Your task to perform on an android device: turn on notifications settings in the gmail app Image 0: 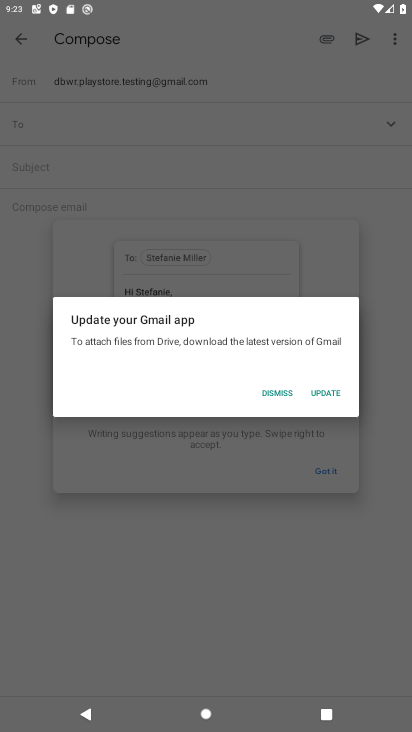
Step 0: press home button
Your task to perform on an android device: turn on notifications settings in the gmail app Image 1: 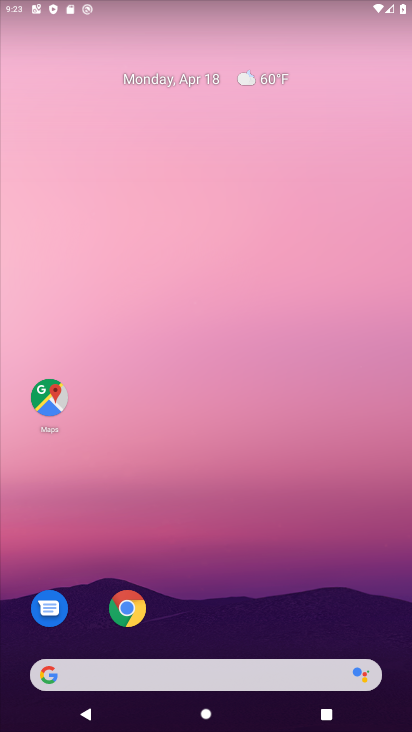
Step 1: drag from (342, 403) to (304, 117)
Your task to perform on an android device: turn on notifications settings in the gmail app Image 2: 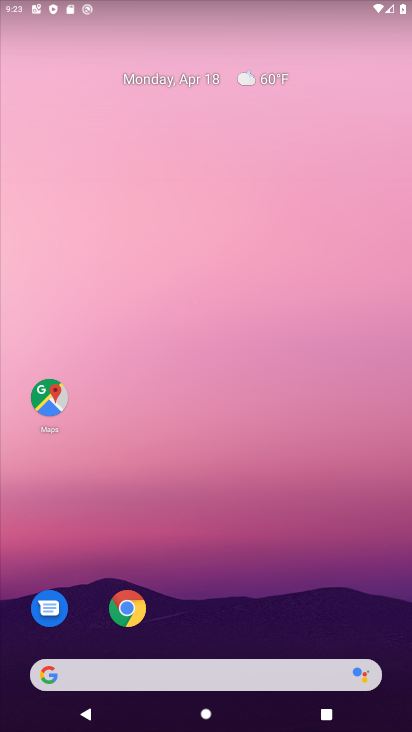
Step 2: drag from (353, 455) to (315, 85)
Your task to perform on an android device: turn on notifications settings in the gmail app Image 3: 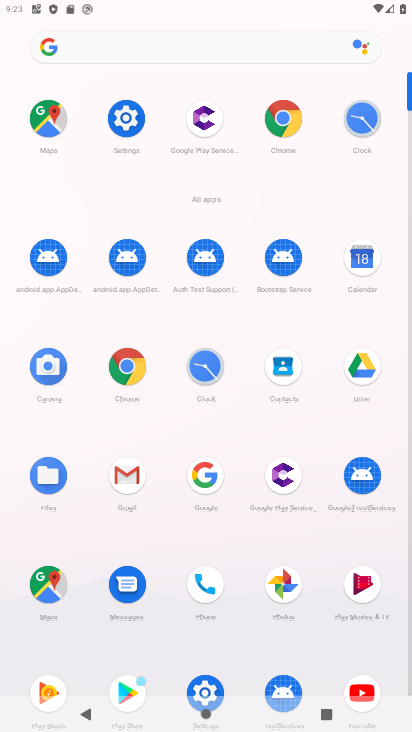
Step 3: click (195, 683)
Your task to perform on an android device: turn on notifications settings in the gmail app Image 4: 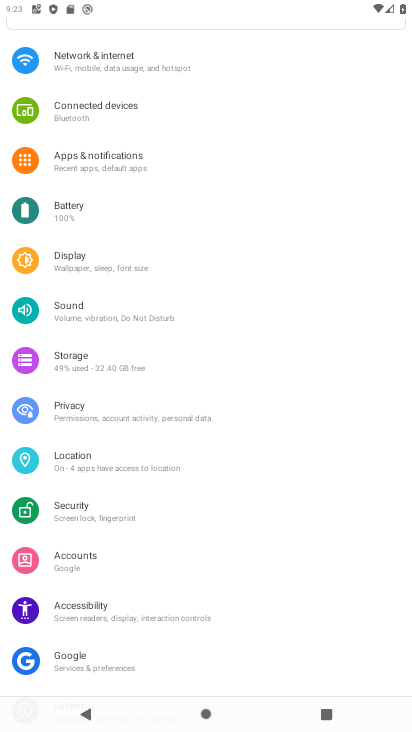
Step 4: press back button
Your task to perform on an android device: turn on notifications settings in the gmail app Image 5: 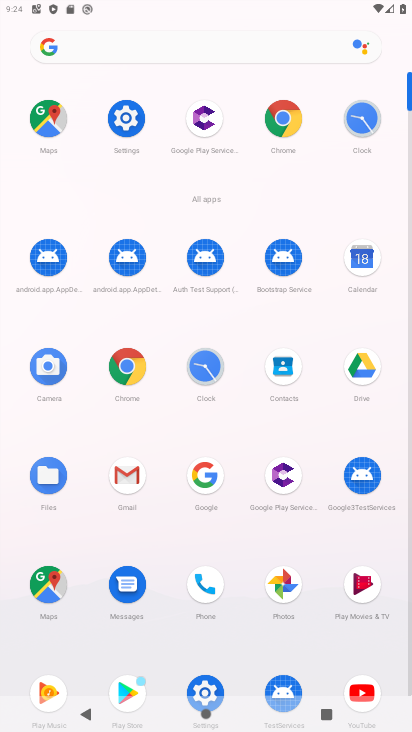
Step 5: click (134, 475)
Your task to perform on an android device: turn on notifications settings in the gmail app Image 6: 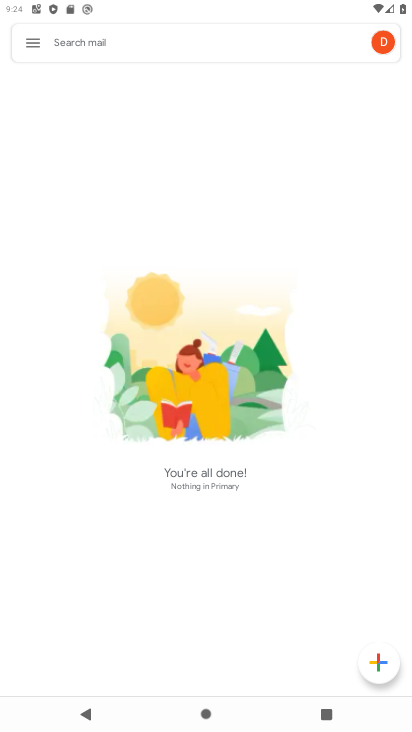
Step 6: click (32, 39)
Your task to perform on an android device: turn on notifications settings in the gmail app Image 7: 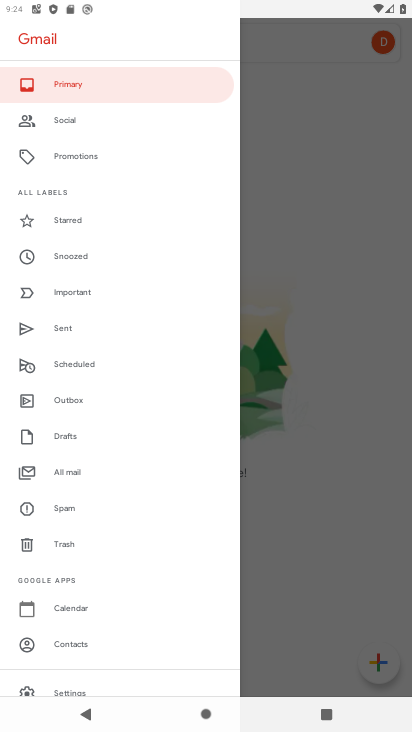
Step 7: click (68, 683)
Your task to perform on an android device: turn on notifications settings in the gmail app Image 8: 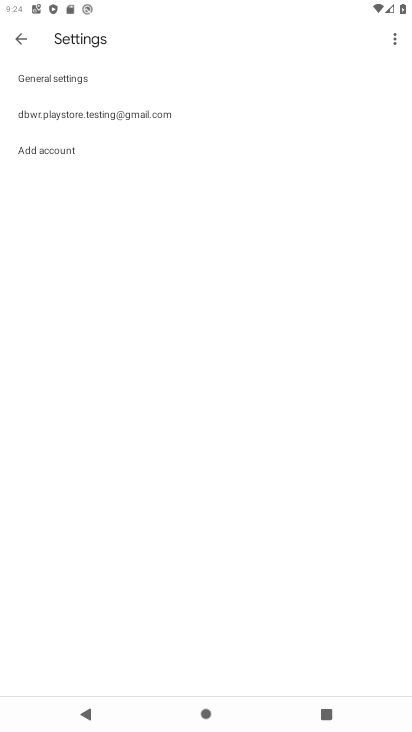
Step 8: click (52, 73)
Your task to perform on an android device: turn on notifications settings in the gmail app Image 9: 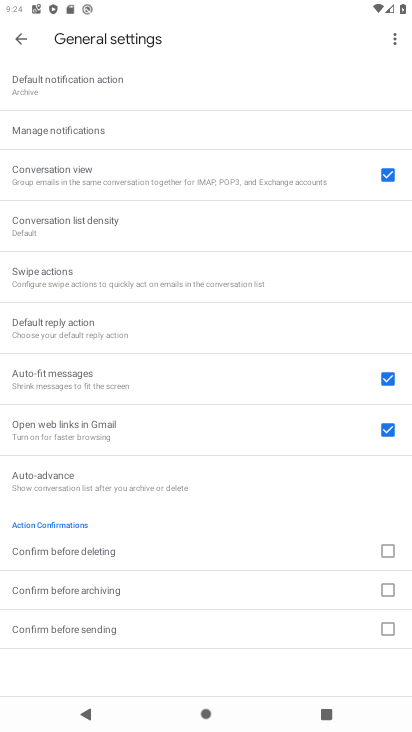
Step 9: click (124, 132)
Your task to perform on an android device: turn on notifications settings in the gmail app Image 10: 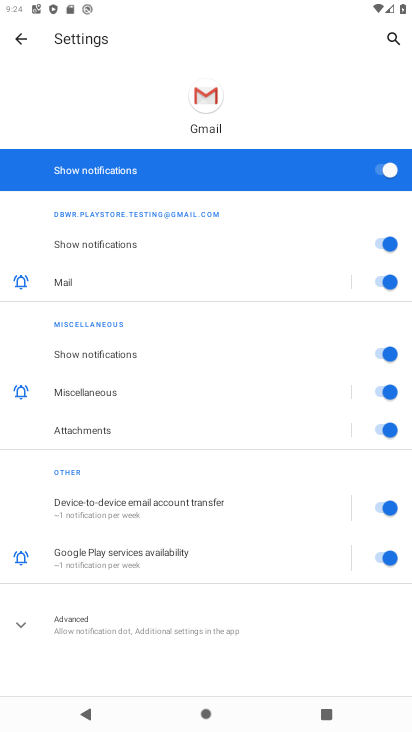
Step 10: task complete